Your task to perform on an android device: turn on wifi Image 0: 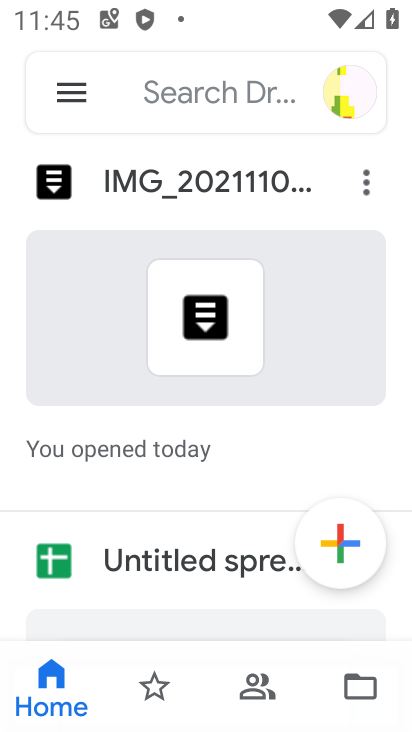
Step 0: press home button
Your task to perform on an android device: turn on wifi Image 1: 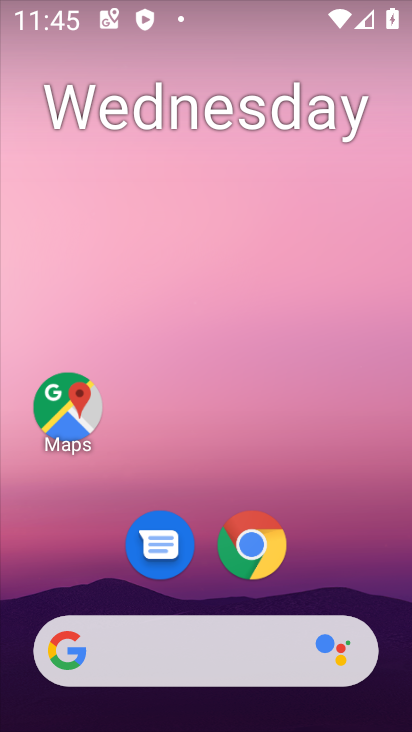
Step 1: drag from (321, 518) to (322, 254)
Your task to perform on an android device: turn on wifi Image 2: 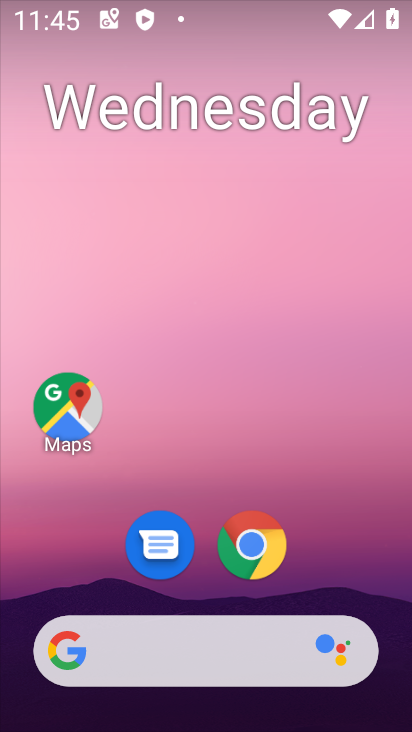
Step 2: drag from (310, 544) to (311, 200)
Your task to perform on an android device: turn on wifi Image 3: 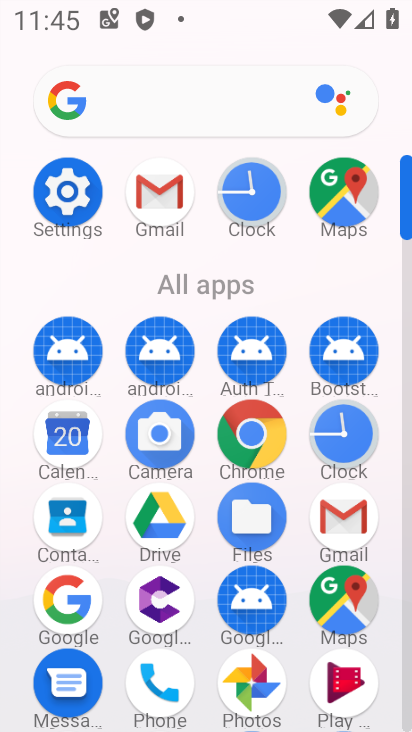
Step 3: click (79, 185)
Your task to perform on an android device: turn on wifi Image 4: 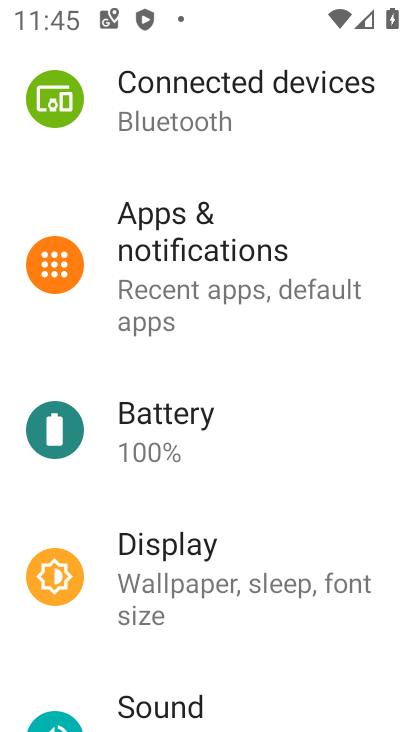
Step 4: drag from (286, 198) to (285, 590)
Your task to perform on an android device: turn on wifi Image 5: 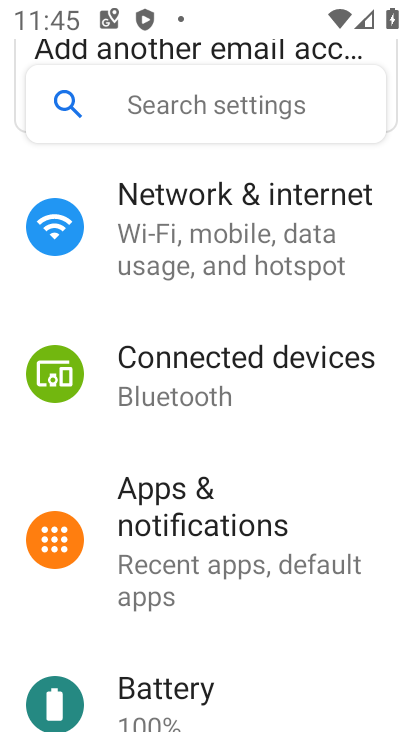
Step 5: drag from (251, 194) to (250, 624)
Your task to perform on an android device: turn on wifi Image 6: 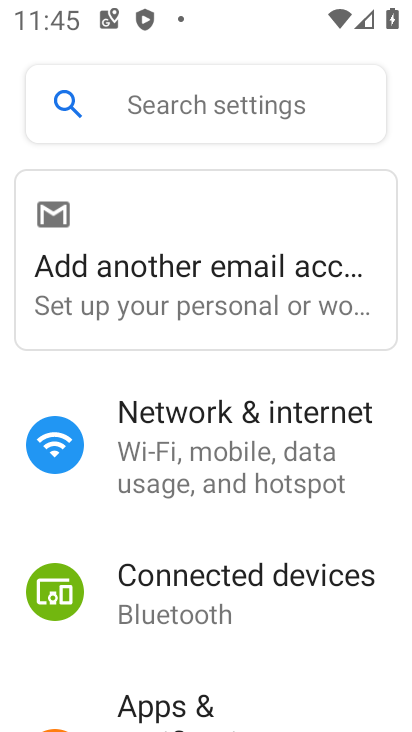
Step 6: click (212, 477)
Your task to perform on an android device: turn on wifi Image 7: 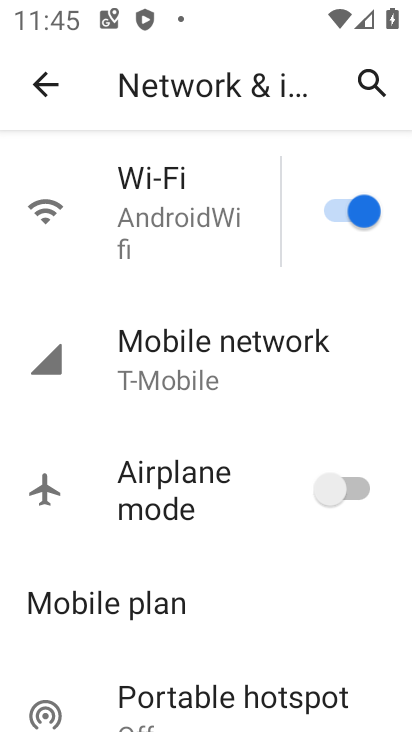
Step 7: click (349, 216)
Your task to perform on an android device: turn on wifi Image 8: 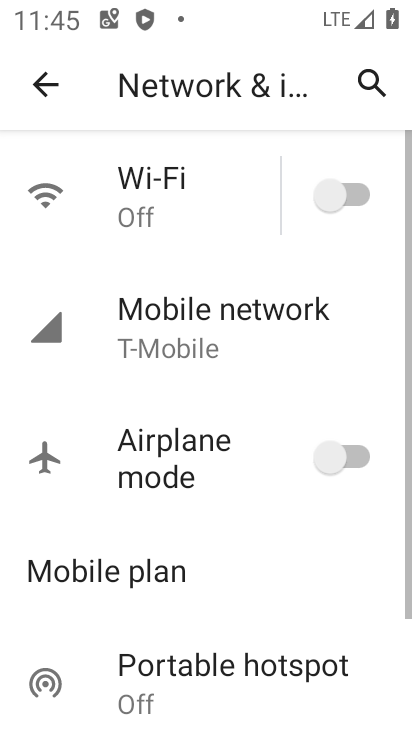
Step 8: task complete